Your task to perform on an android device: empty trash in google photos Image 0: 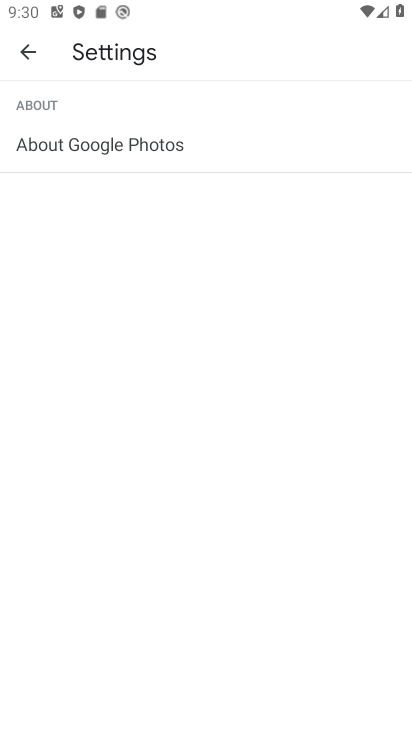
Step 0: press home button
Your task to perform on an android device: empty trash in google photos Image 1: 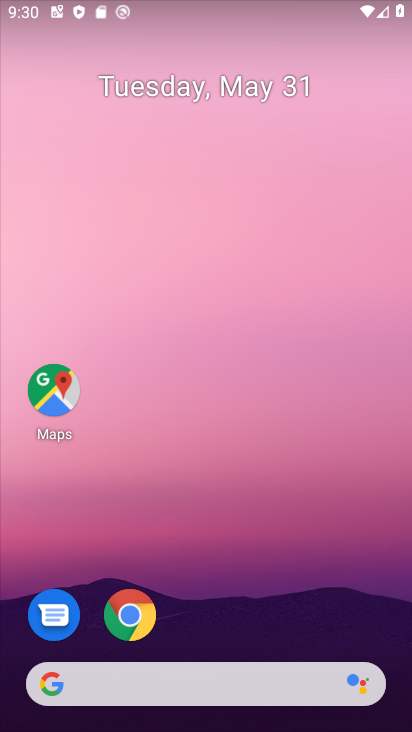
Step 1: drag from (362, 640) to (275, 83)
Your task to perform on an android device: empty trash in google photos Image 2: 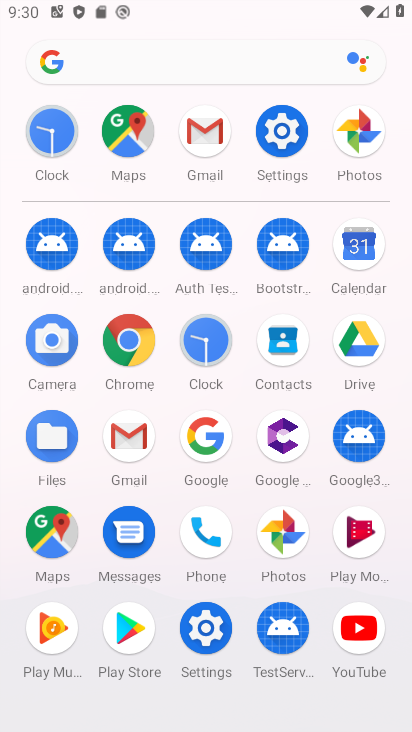
Step 2: click (282, 535)
Your task to perform on an android device: empty trash in google photos Image 3: 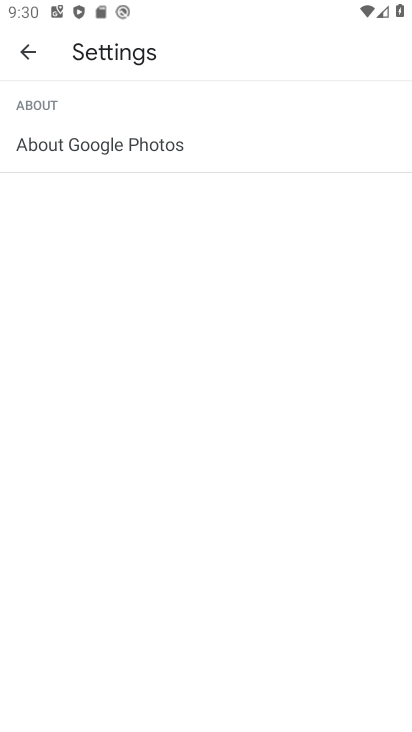
Step 3: press back button
Your task to perform on an android device: empty trash in google photos Image 4: 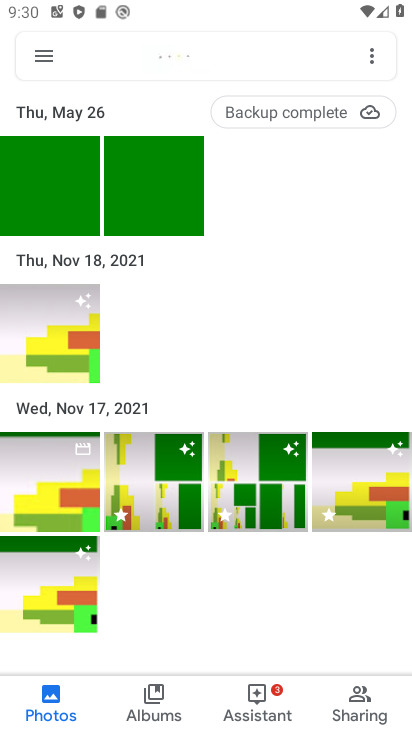
Step 4: click (35, 51)
Your task to perform on an android device: empty trash in google photos Image 5: 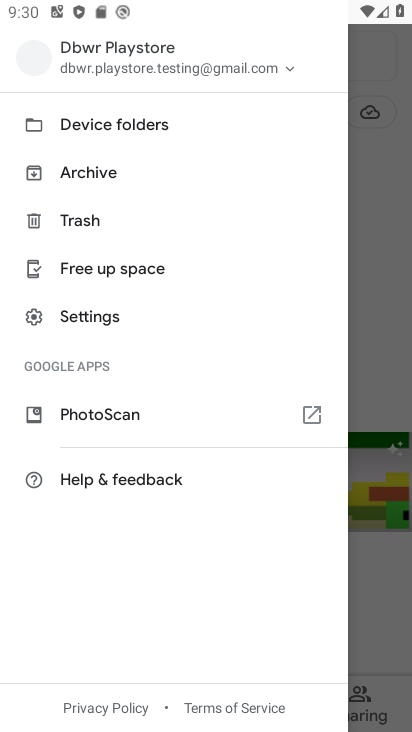
Step 5: click (72, 213)
Your task to perform on an android device: empty trash in google photos Image 6: 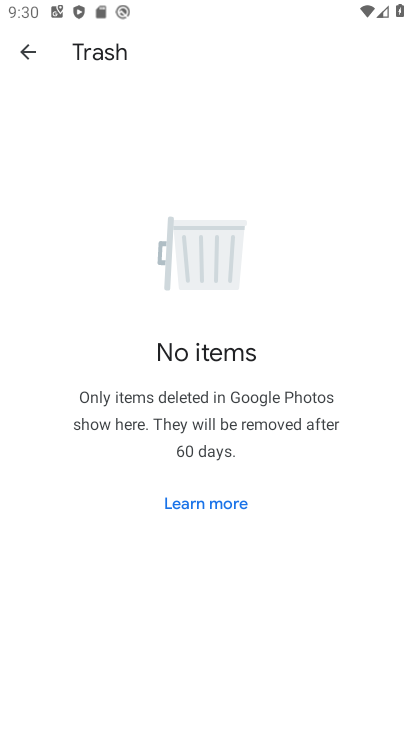
Step 6: task complete